Your task to perform on an android device: Go to notification settings Image 0: 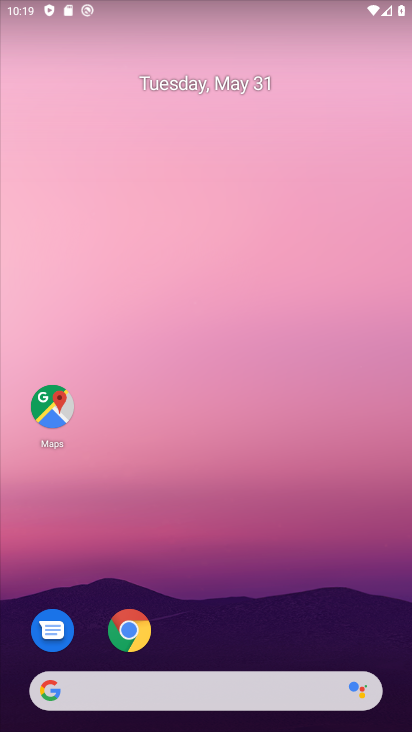
Step 0: drag from (190, 652) to (239, 2)
Your task to perform on an android device: Go to notification settings Image 1: 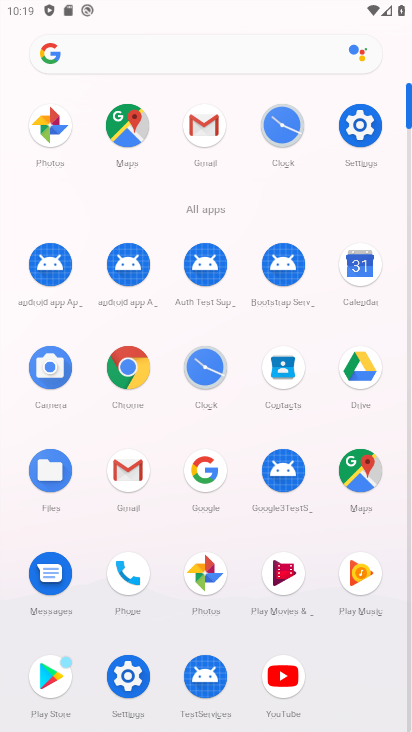
Step 1: click (362, 129)
Your task to perform on an android device: Go to notification settings Image 2: 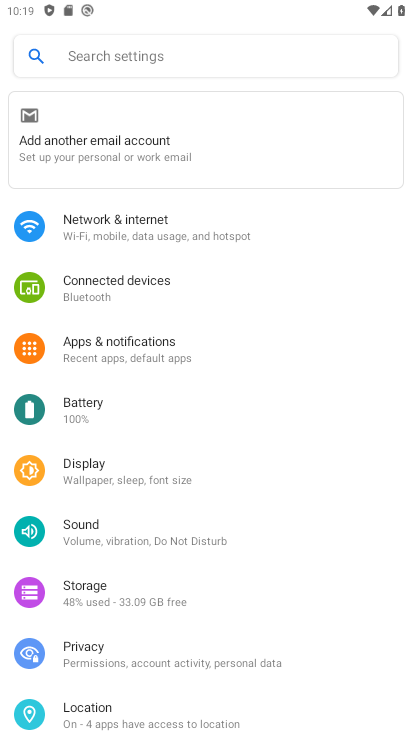
Step 2: click (83, 358)
Your task to perform on an android device: Go to notification settings Image 3: 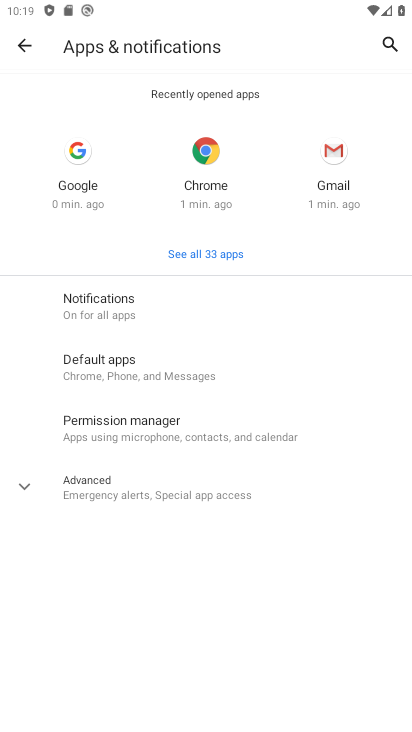
Step 3: click (88, 310)
Your task to perform on an android device: Go to notification settings Image 4: 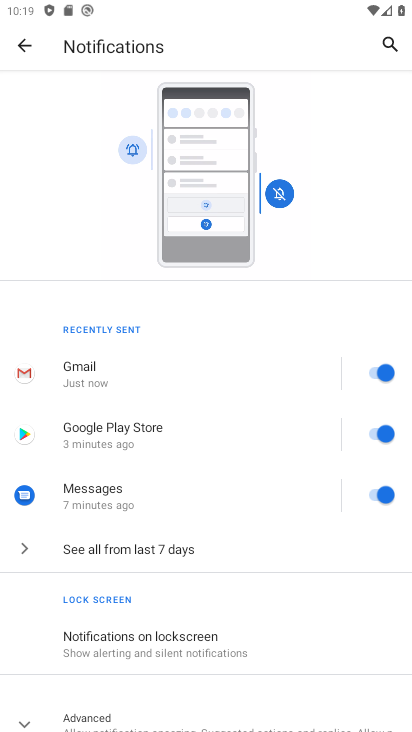
Step 4: drag from (210, 670) to (205, 276)
Your task to perform on an android device: Go to notification settings Image 5: 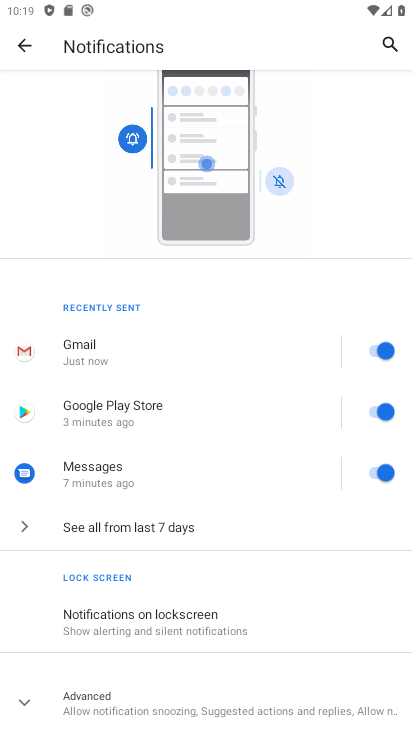
Step 5: click (110, 720)
Your task to perform on an android device: Go to notification settings Image 6: 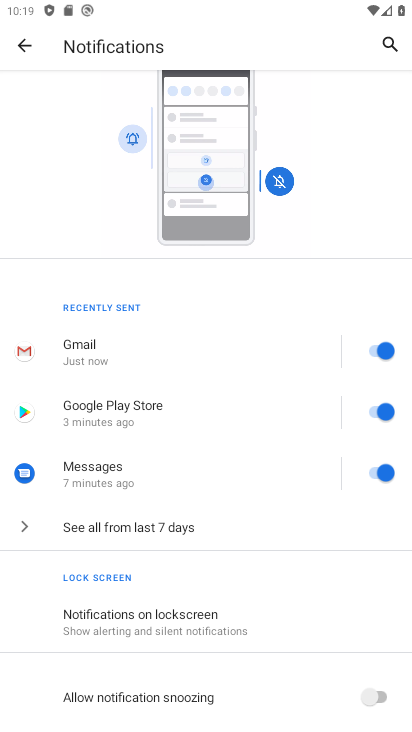
Step 6: drag from (153, 699) to (175, 386)
Your task to perform on an android device: Go to notification settings Image 7: 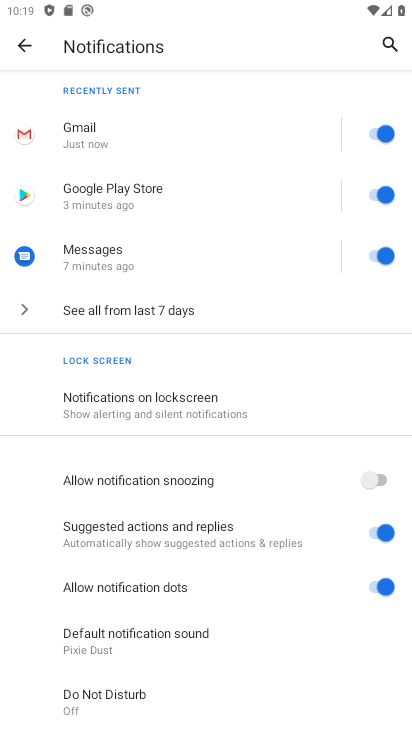
Step 7: click (149, 410)
Your task to perform on an android device: Go to notification settings Image 8: 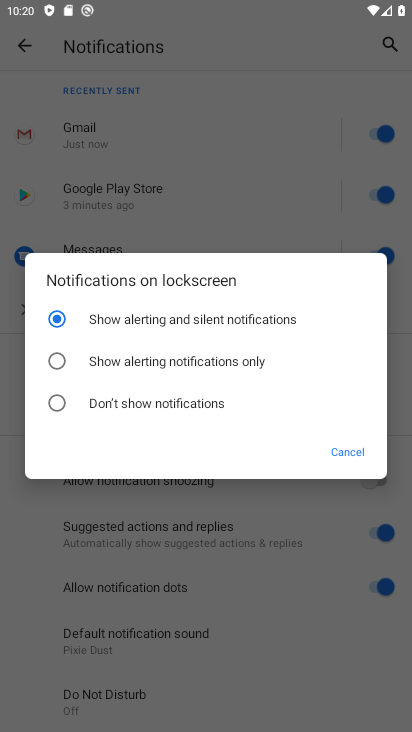
Step 8: task complete